Your task to perform on an android device: Go to battery settings Image 0: 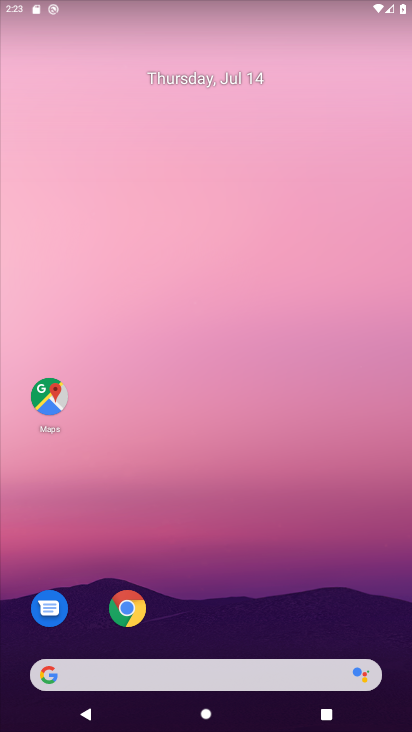
Step 0: drag from (410, 383) to (398, 223)
Your task to perform on an android device: Go to battery settings Image 1: 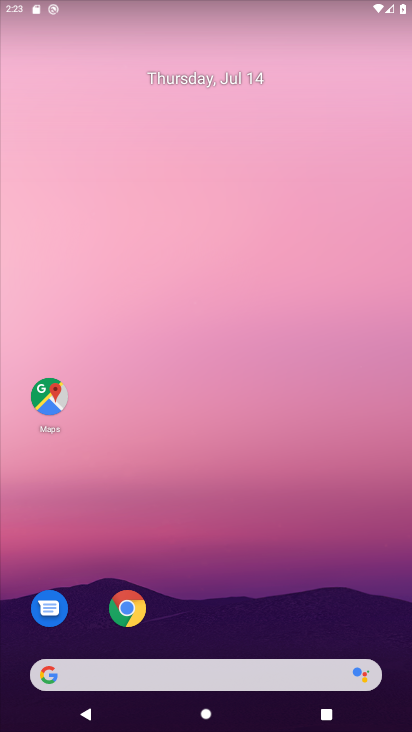
Step 1: drag from (298, 498) to (334, 87)
Your task to perform on an android device: Go to battery settings Image 2: 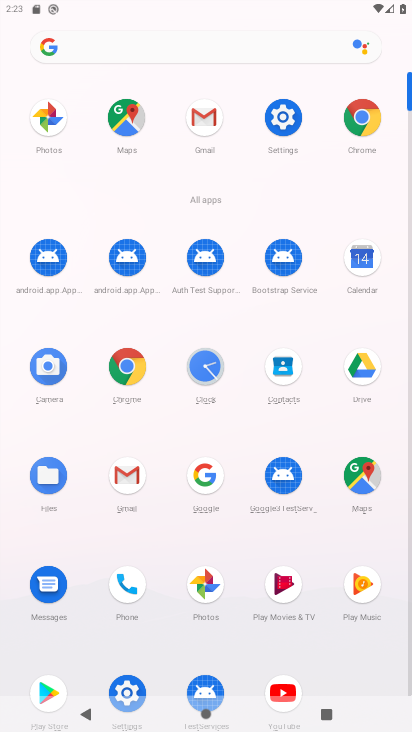
Step 2: click (271, 105)
Your task to perform on an android device: Go to battery settings Image 3: 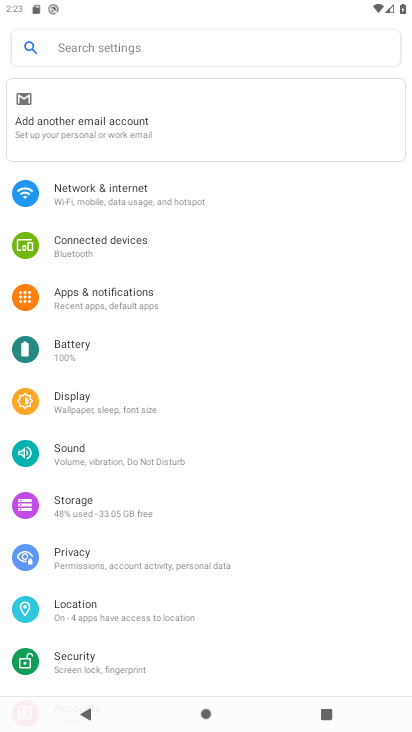
Step 3: click (94, 342)
Your task to perform on an android device: Go to battery settings Image 4: 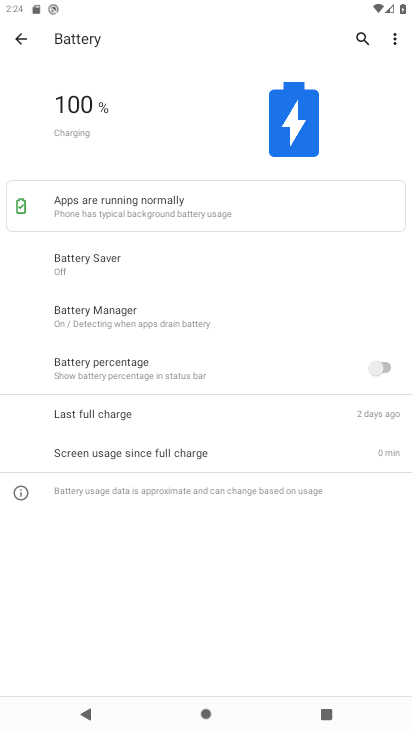
Step 4: task complete